Your task to perform on an android device: View the shopping cart on target. Search for usb-c on target, select the first entry, and add it to the cart. Image 0: 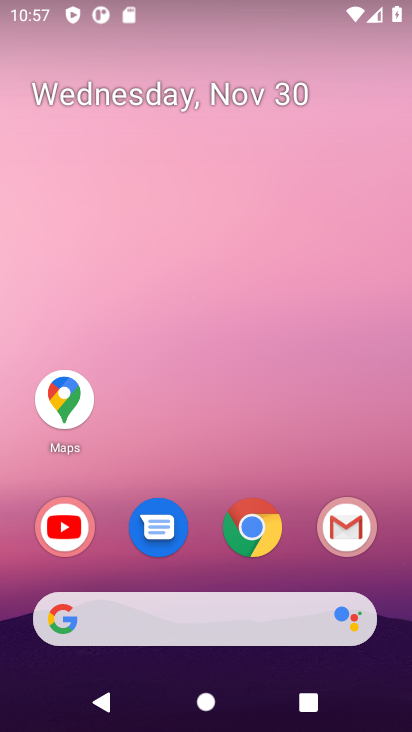
Step 0: click (252, 530)
Your task to perform on an android device: View the shopping cart on target. Search for usb-c on target, select the first entry, and add it to the cart. Image 1: 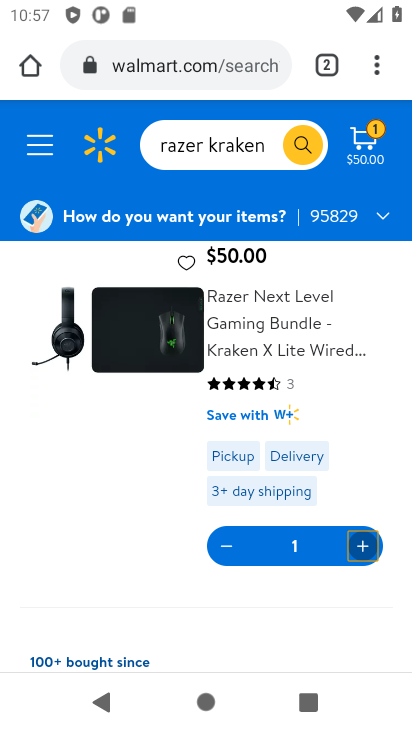
Step 1: click (172, 67)
Your task to perform on an android device: View the shopping cart on target. Search for usb-c on target, select the first entry, and add it to the cart. Image 2: 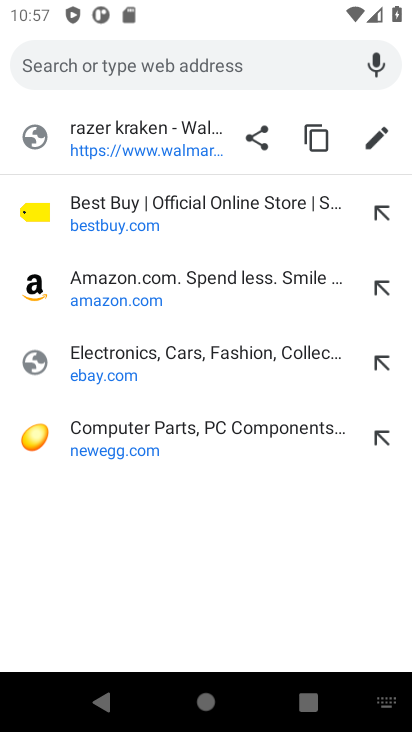
Step 2: type "target.com"
Your task to perform on an android device: View the shopping cart on target. Search for usb-c on target, select the first entry, and add it to the cart. Image 3: 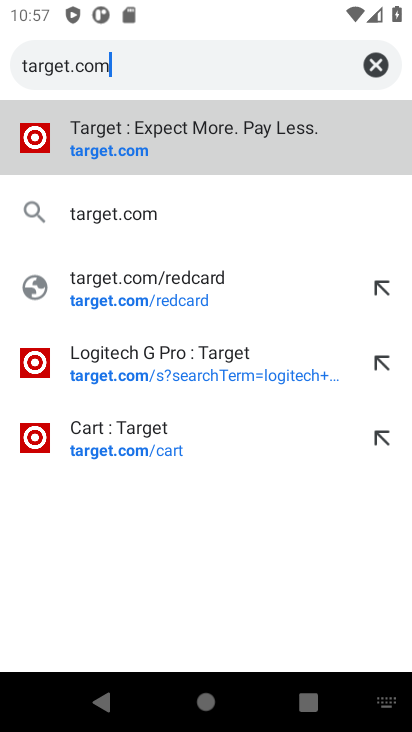
Step 3: click (96, 151)
Your task to perform on an android device: View the shopping cart on target. Search for usb-c on target, select the first entry, and add it to the cart. Image 4: 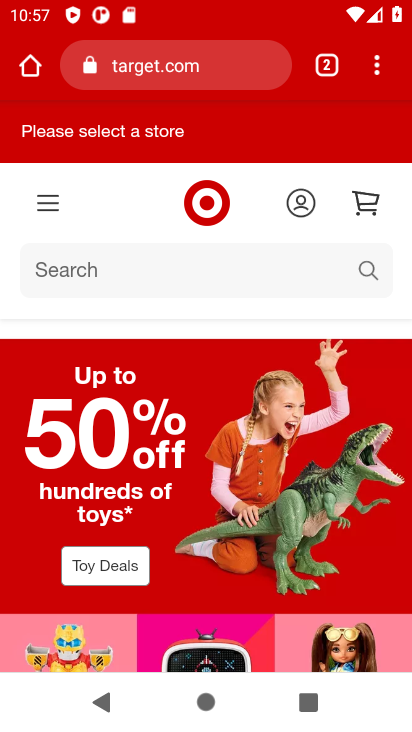
Step 4: click (371, 203)
Your task to perform on an android device: View the shopping cart on target. Search for usb-c on target, select the first entry, and add it to the cart. Image 5: 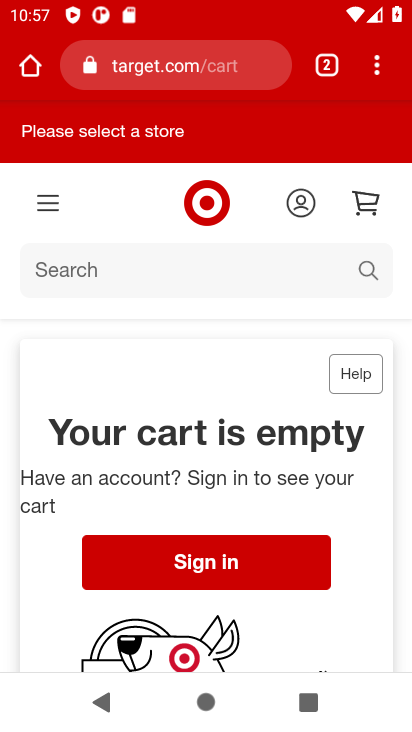
Step 5: click (77, 275)
Your task to perform on an android device: View the shopping cart on target. Search for usb-c on target, select the first entry, and add it to the cart. Image 6: 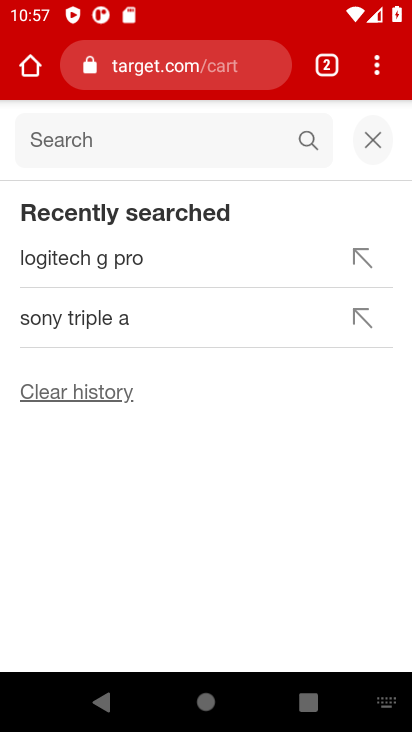
Step 6: type " usb-c "
Your task to perform on an android device: View the shopping cart on target. Search for usb-c on target, select the first entry, and add it to the cart. Image 7: 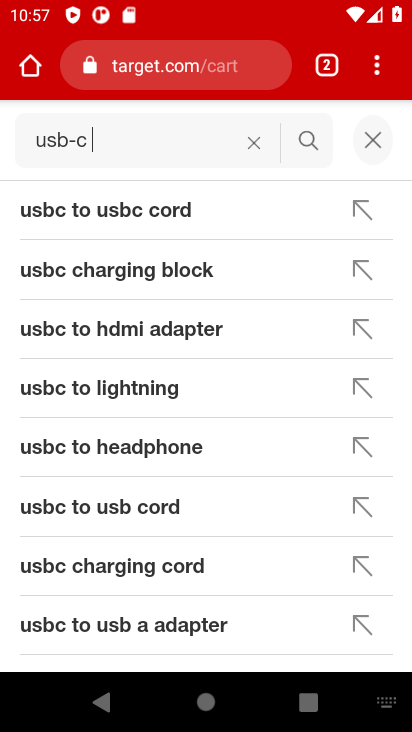
Step 7: click (311, 146)
Your task to perform on an android device: View the shopping cart on target. Search for usb-c on target, select the first entry, and add it to the cart. Image 8: 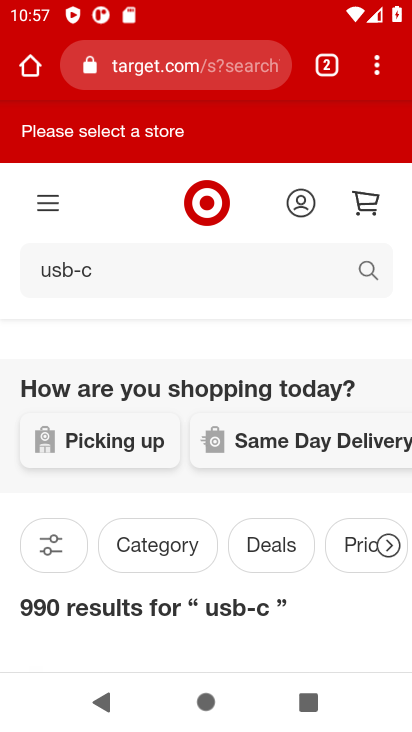
Step 8: drag from (206, 572) to (184, 232)
Your task to perform on an android device: View the shopping cart on target. Search for usb-c on target, select the first entry, and add it to the cart. Image 9: 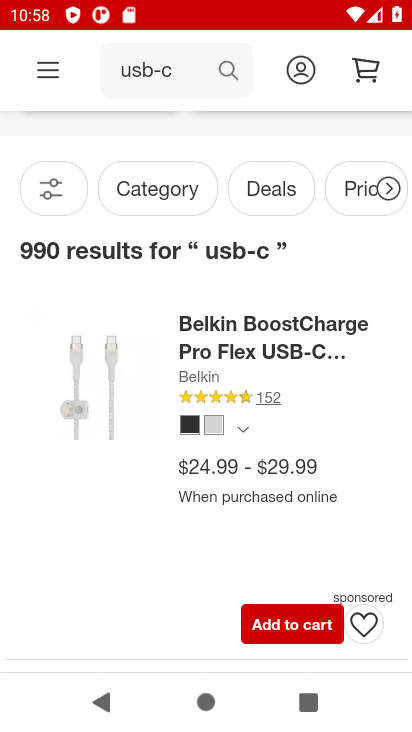
Step 9: click (204, 349)
Your task to perform on an android device: View the shopping cart on target. Search for usb-c on target, select the first entry, and add it to the cart. Image 10: 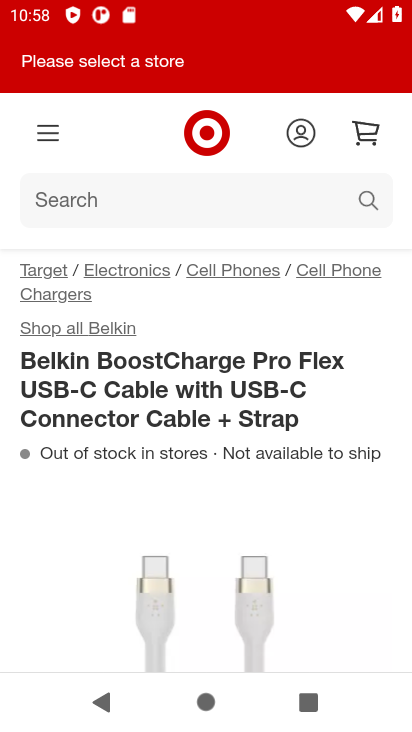
Step 10: drag from (172, 442) to (175, 216)
Your task to perform on an android device: View the shopping cart on target. Search for usb-c on target, select the first entry, and add it to the cart. Image 11: 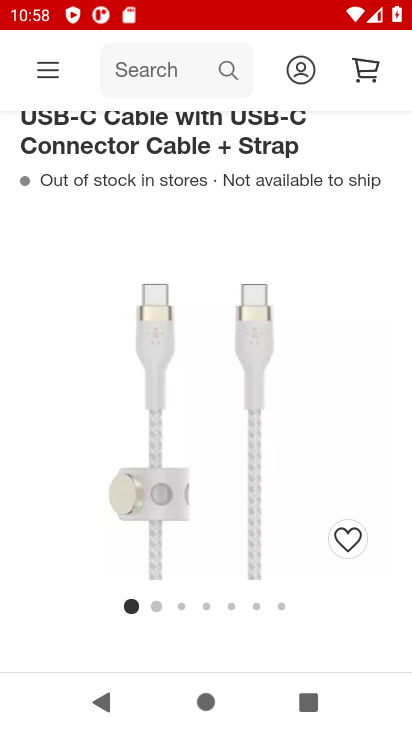
Step 11: drag from (166, 533) to (156, 211)
Your task to perform on an android device: View the shopping cart on target. Search for usb-c on target, select the first entry, and add it to the cart. Image 12: 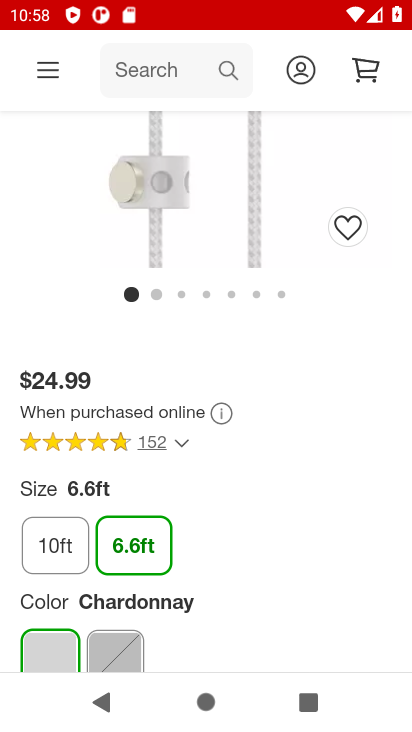
Step 12: drag from (159, 541) to (152, 193)
Your task to perform on an android device: View the shopping cart on target. Search for usb-c on target, select the first entry, and add it to the cart. Image 13: 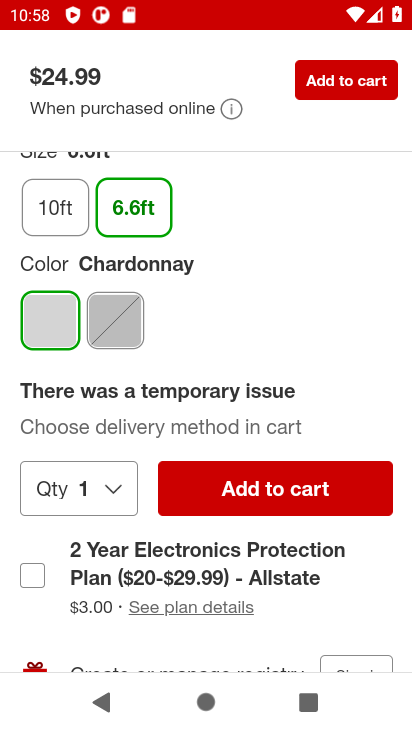
Step 13: click (265, 492)
Your task to perform on an android device: View the shopping cart on target. Search for usb-c on target, select the first entry, and add it to the cart. Image 14: 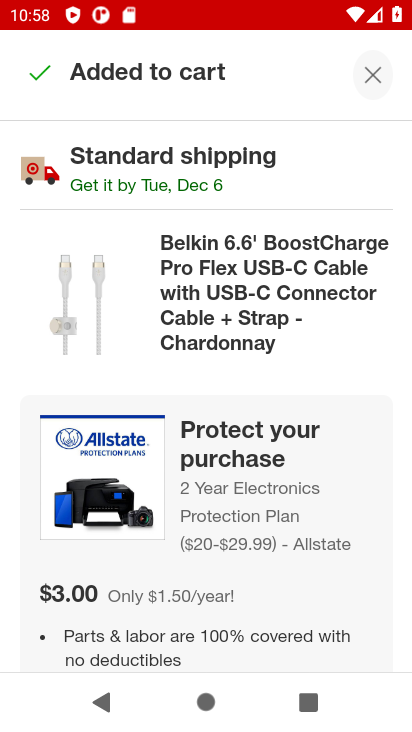
Step 14: task complete